Your task to perform on an android device: change notification settings in the gmail app Image 0: 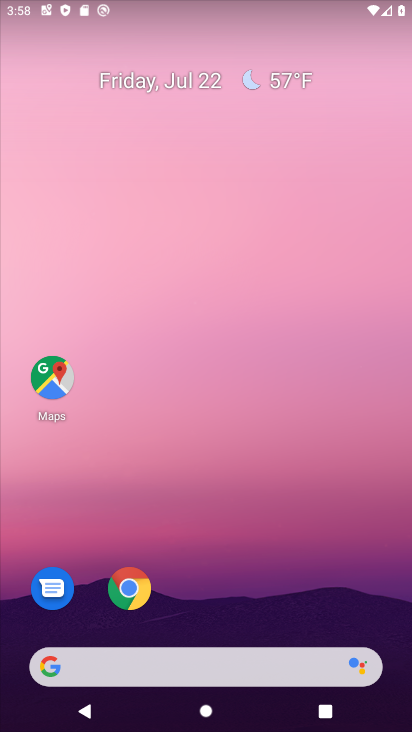
Step 0: drag from (184, 630) to (115, 161)
Your task to perform on an android device: change notification settings in the gmail app Image 1: 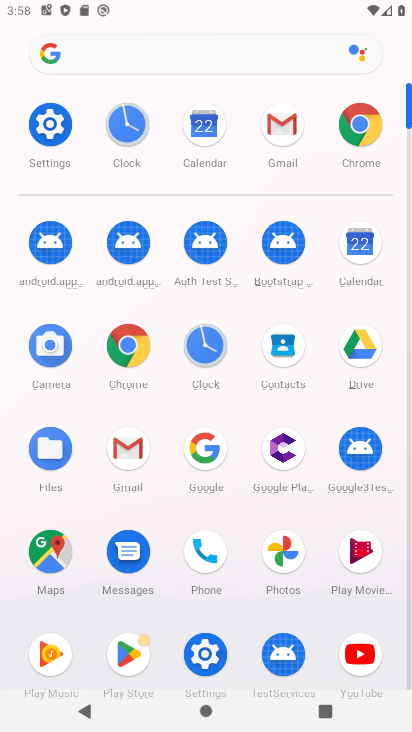
Step 1: click (128, 450)
Your task to perform on an android device: change notification settings in the gmail app Image 2: 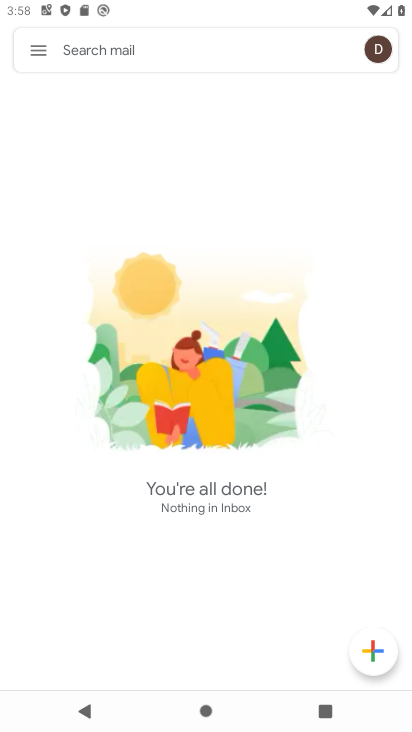
Step 2: click (39, 53)
Your task to perform on an android device: change notification settings in the gmail app Image 3: 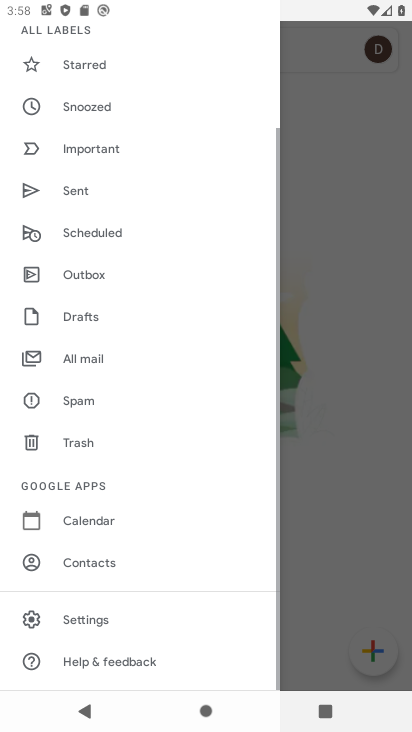
Step 3: click (89, 620)
Your task to perform on an android device: change notification settings in the gmail app Image 4: 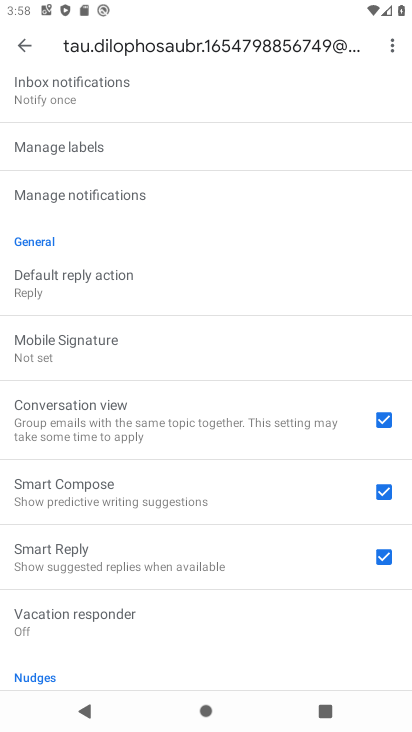
Step 4: click (26, 46)
Your task to perform on an android device: change notification settings in the gmail app Image 5: 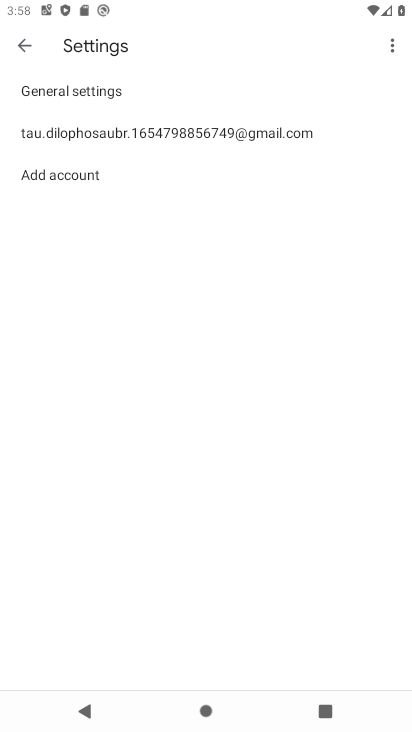
Step 5: click (41, 85)
Your task to perform on an android device: change notification settings in the gmail app Image 6: 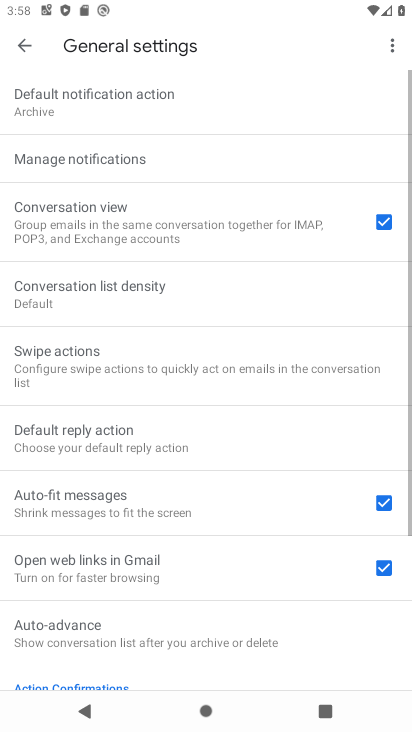
Step 6: click (94, 166)
Your task to perform on an android device: change notification settings in the gmail app Image 7: 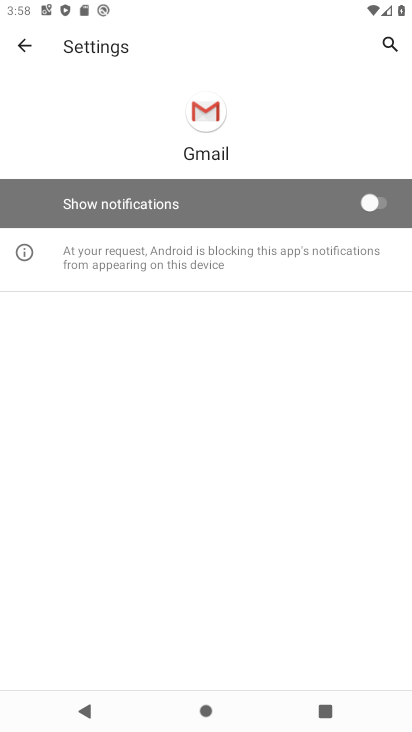
Step 7: click (366, 205)
Your task to perform on an android device: change notification settings in the gmail app Image 8: 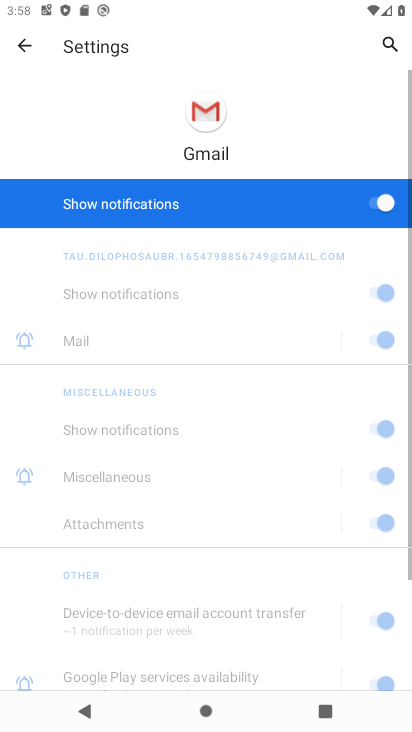
Step 8: task complete